Your task to perform on an android device: Open Google Maps Image 0: 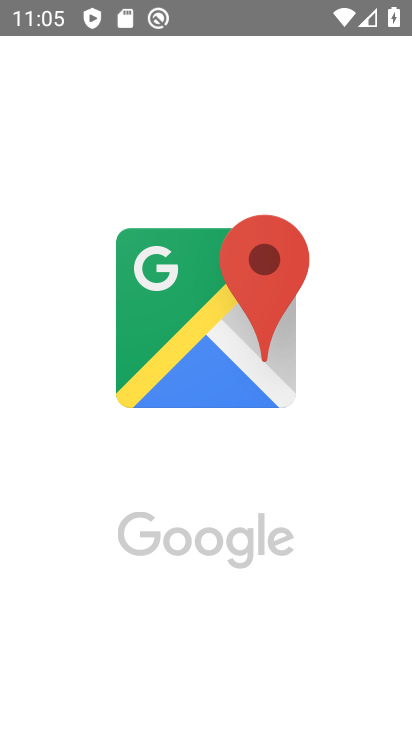
Step 0: task complete